Your task to perform on an android device: change keyboard looks Image 0: 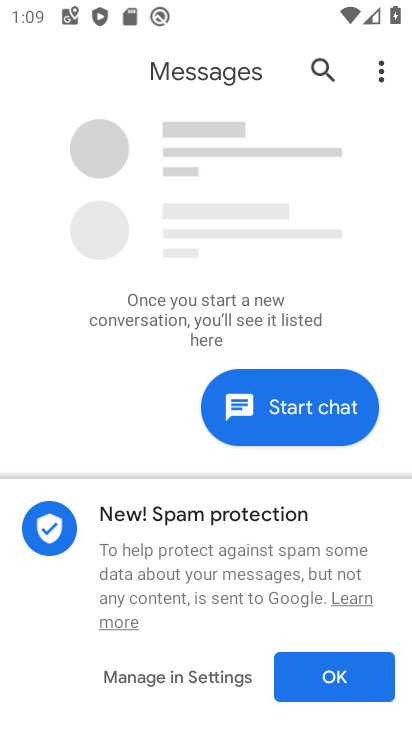
Step 0: press home button
Your task to perform on an android device: change keyboard looks Image 1: 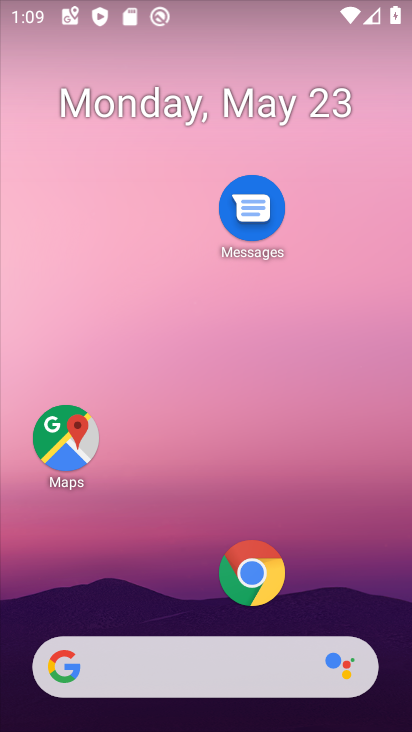
Step 1: drag from (198, 495) to (211, 57)
Your task to perform on an android device: change keyboard looks Image 2: 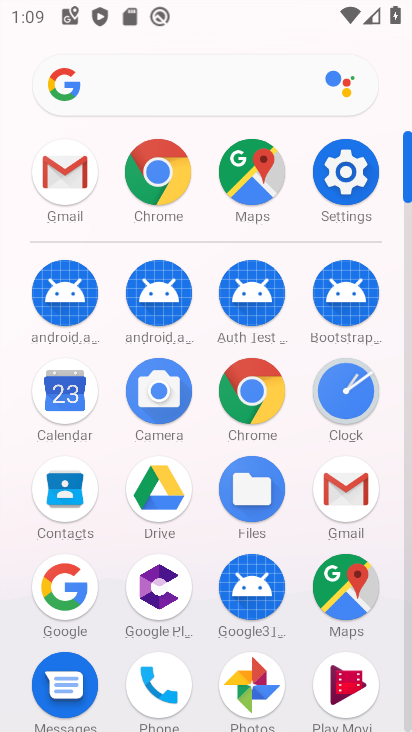
Step 2: click (358, 162)
Your task to perform on an android device: change keyboard looks Image 3: 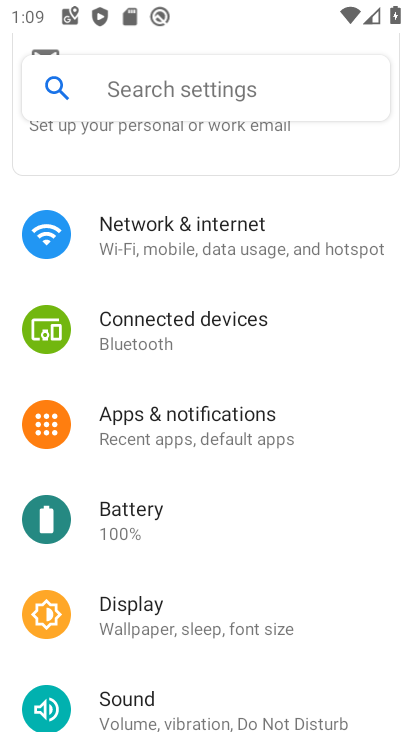
Step 3: drag from (280, 561) to (279, 241)
Your task to perform on an android device: change keyboard looks Image 4: 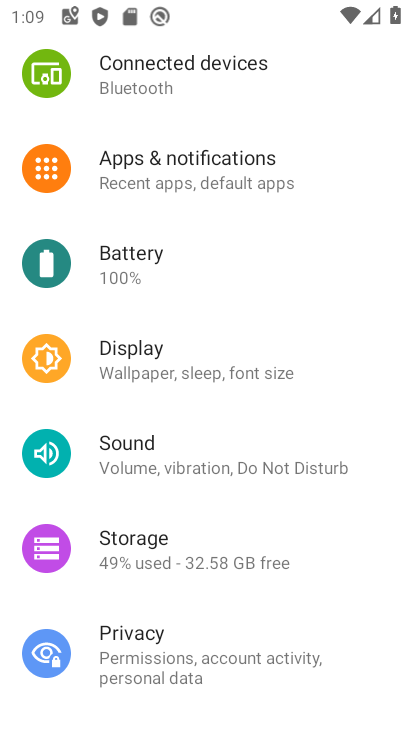
Step 4: drag from (269, 416) to (290, 80)
Your task to perform on an android device: change keyboard looks Image 5: 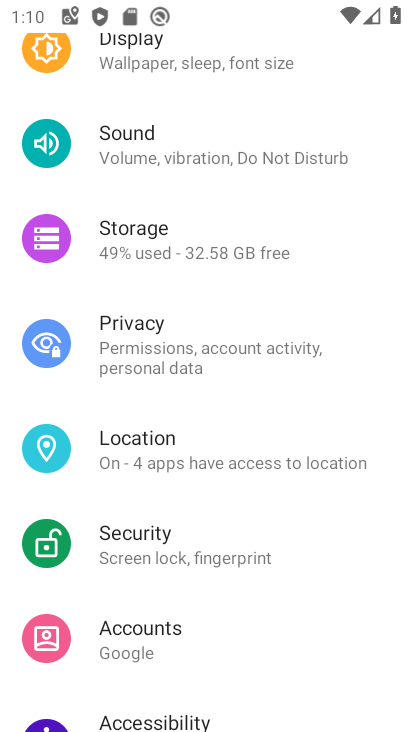
Step 5: drag from (291, 601) to (330, 175)
Your task to perform on an android device: change keyboard looks Image 6: 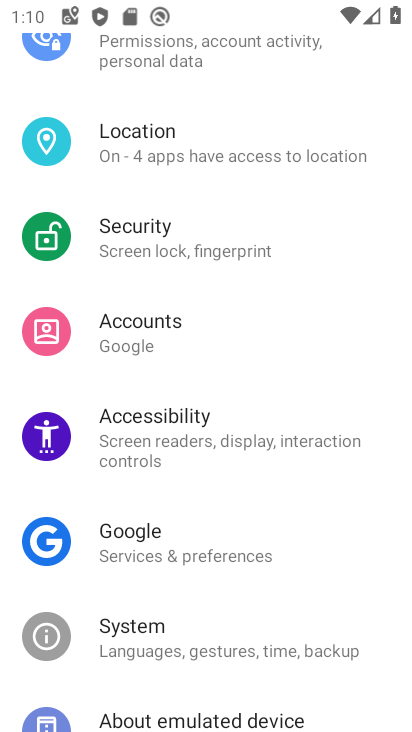
Step 6: click (147, 629)
Your task to perform on an android device: change keyboard looks Image 7: 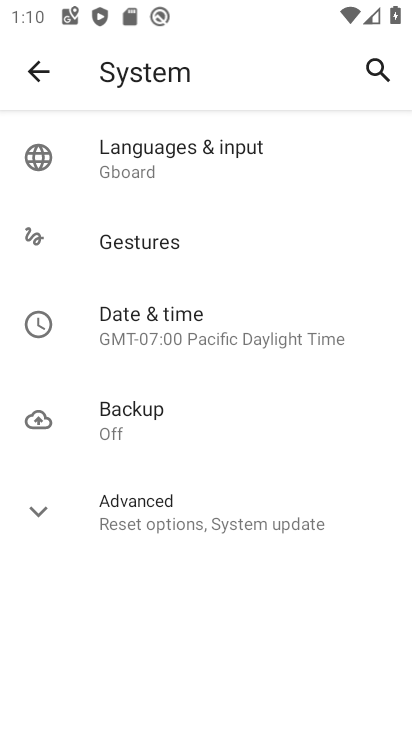
Step 7: click (246, 159)
Your task to perform on an android device: change keyboard looks Image 8: 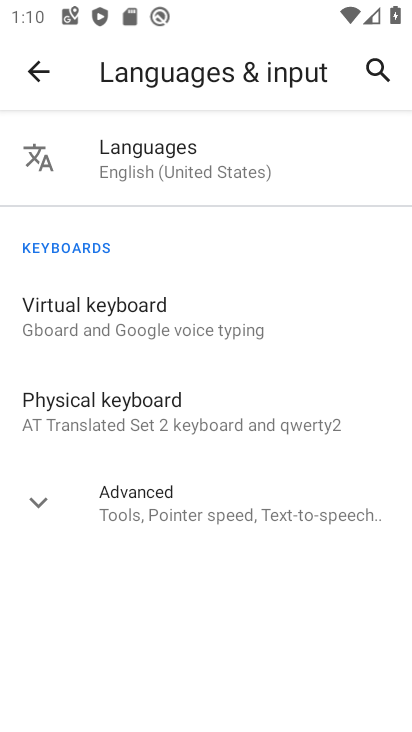
Step 8: click (136, 309)
Your task to perform on an android device: change keyboard looks Image 9: 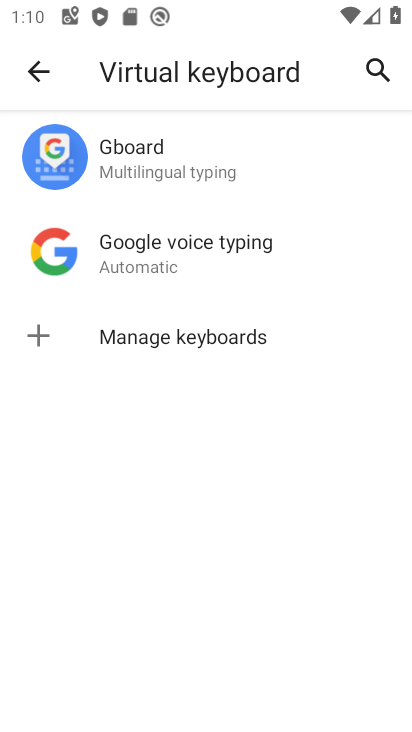
Step 9: click (159, 142)
Your task to perform on an android device: change keyboard looks Image 10: 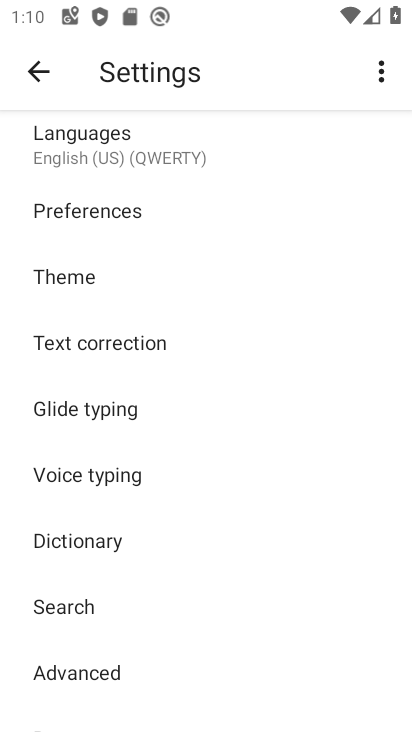
Step 10: click (98, 284)
Your task to perform on an android device: change keyboard looks Image 11: 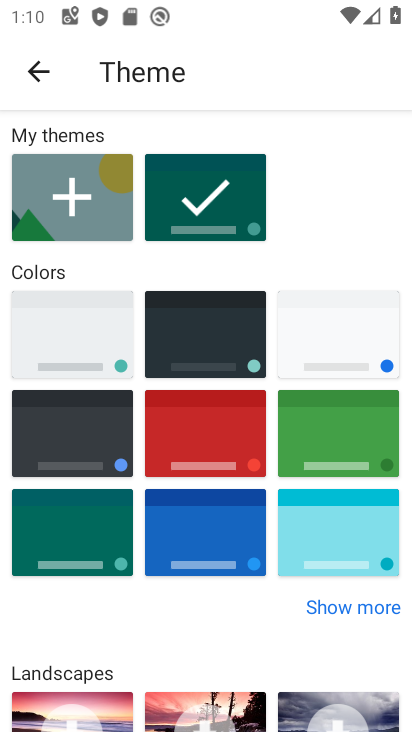
Step 11: click (191, 410)
Your task to perform on an android device: change keyboard looks Image 12: 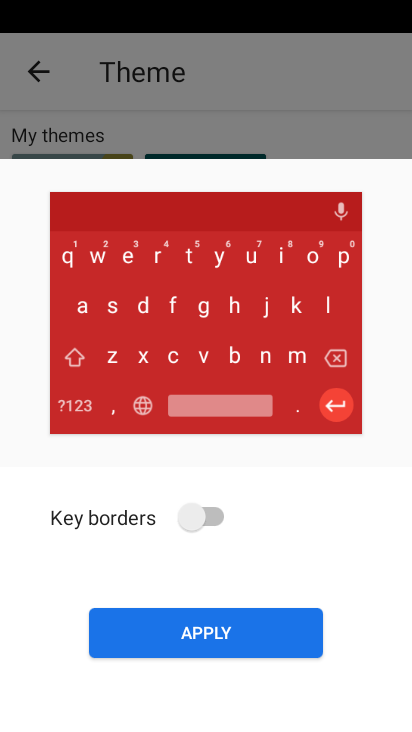
Step 12: click (210, 639)
Your task to perform on an android device: change keyboard looks Image 13: 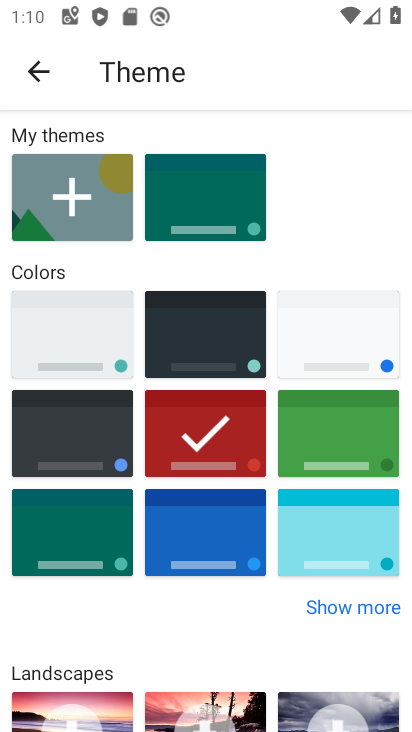
Step 13: task complete